Your task to perform on an android device: turn off data saver in the chrome app Image 0: 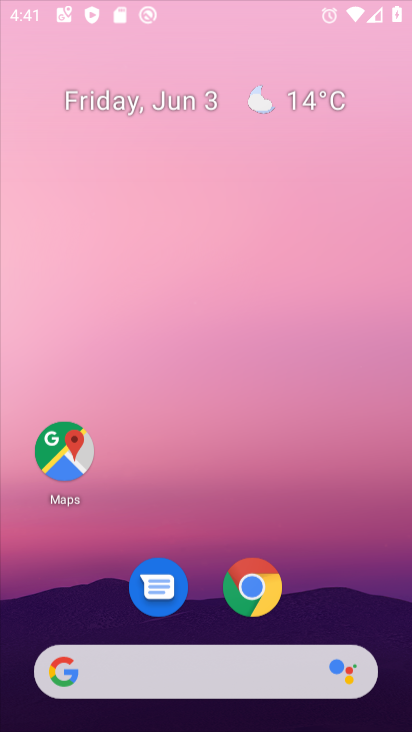
Step 0: drag from (177, 594) to (154, 133)
Your task to perform on an android device: turn off data saver in the chrome app Image 1: 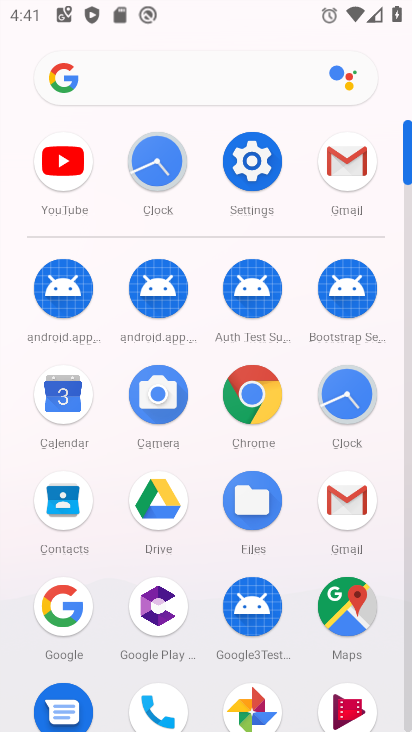
Step 1: click (257, 389)
Your task to perform on an android device: turn off data saver in the chrome app Image 2: 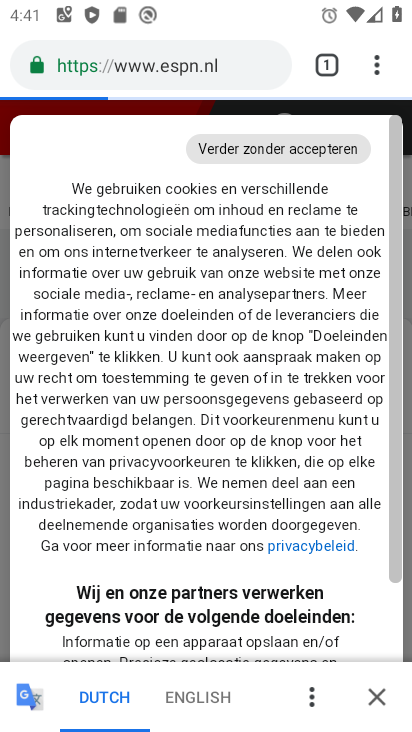
Step 2: click (379, 70)
Your task to perform on an android device: turn off data saver in the chrome app Image 3: 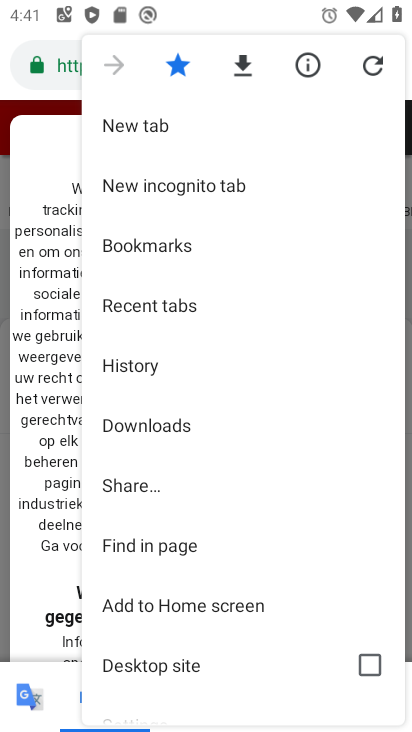
Step 3: drag from (151, 700) to (141, 299)
Your task to perform on an android device: turn off data saver in the chrome app Image 4: 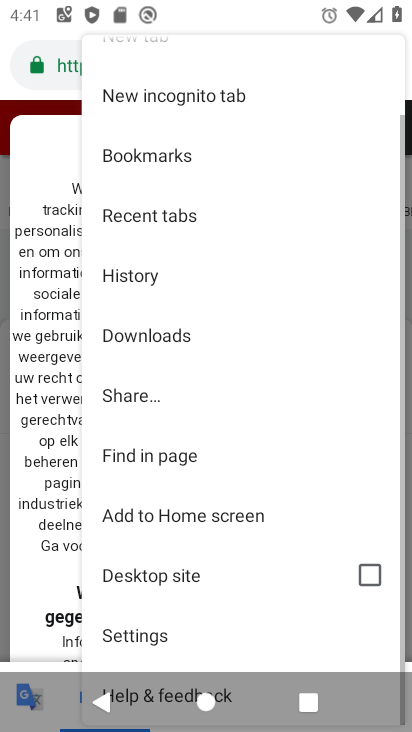
Step 4: click (120, 642)
Your task to perform on an android device: turn off data saver in the chrome app Image 5: 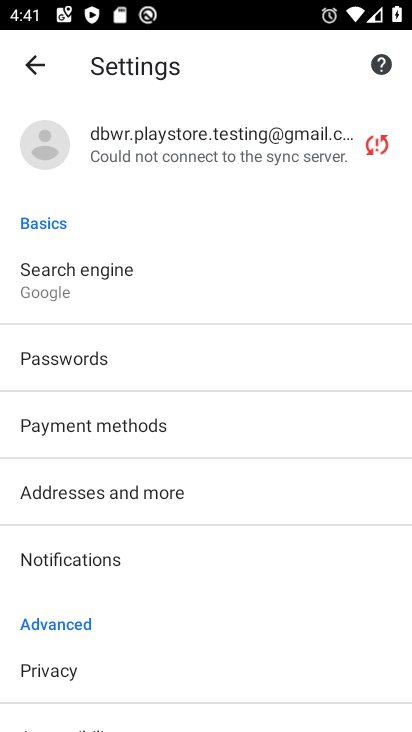
Step 5: drag from (133, 674) to (126, 279)
Your task to perform on an android device: turn off data saver in the chrome app Image 6: 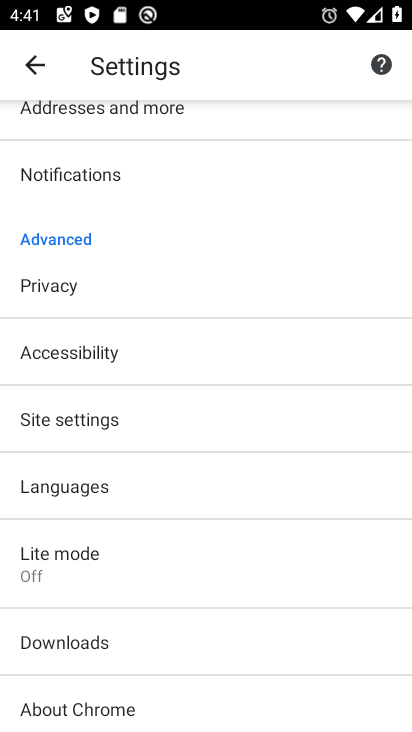
Step 6: click (77, 568)
Your task to perform on an android device: turn off data saver in the chrome app Image 7: 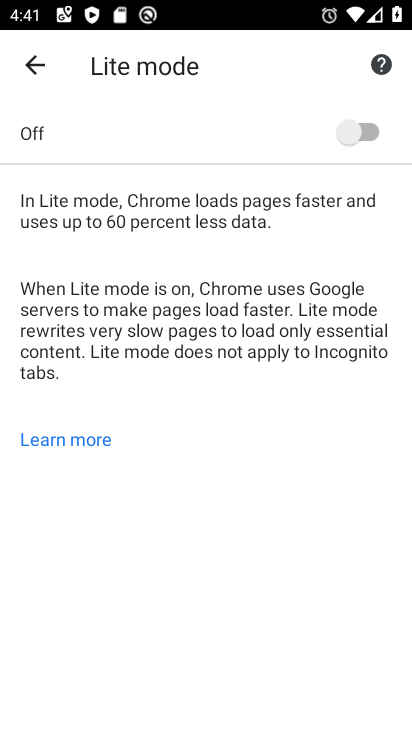
Step 7: task complete